Your task to perform on an android device: toggle translation in the chrome app Image 0: 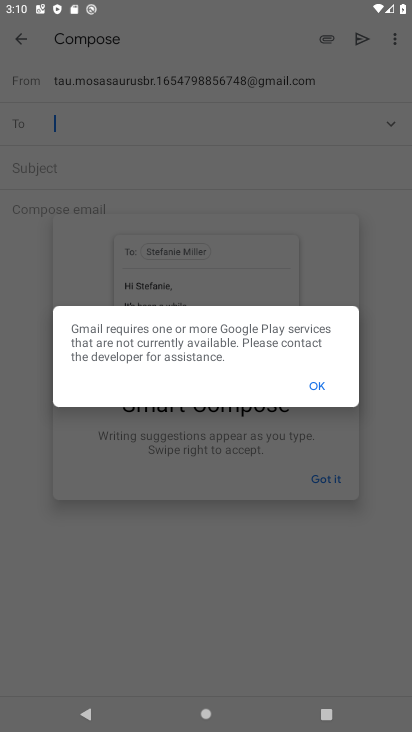
Step 0: press home button
Your task to perform on an android device: toggle translation in the chrome app Image 1: 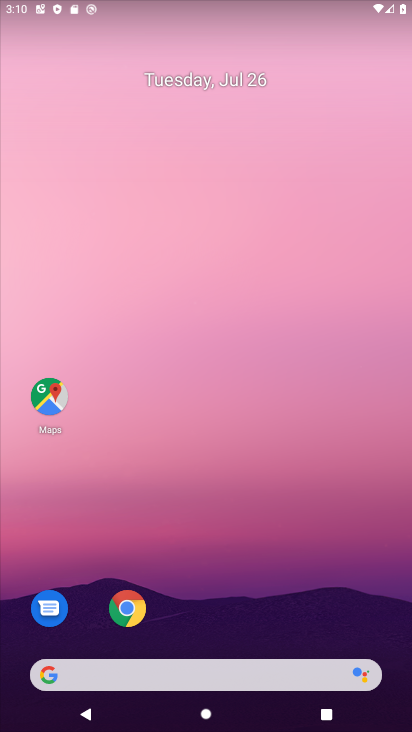
Step 1: click (131, 604)
Your task to perform on an android device: toggle translation in the chrome app Image 2: 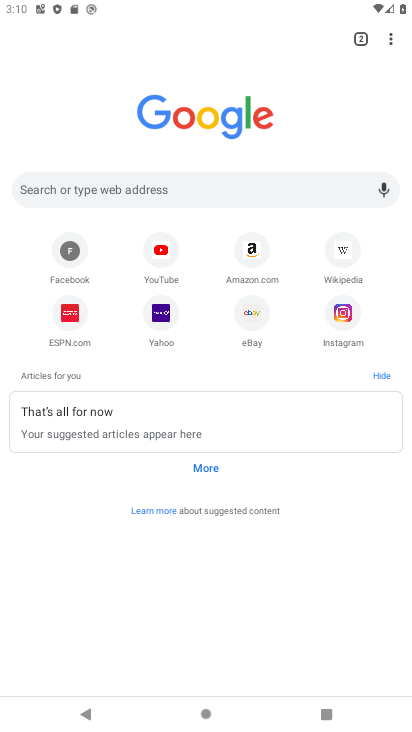
Step 2: task complete